Your task to perform on an android device: open the mobile data screen to see how much data has been used Image 0: 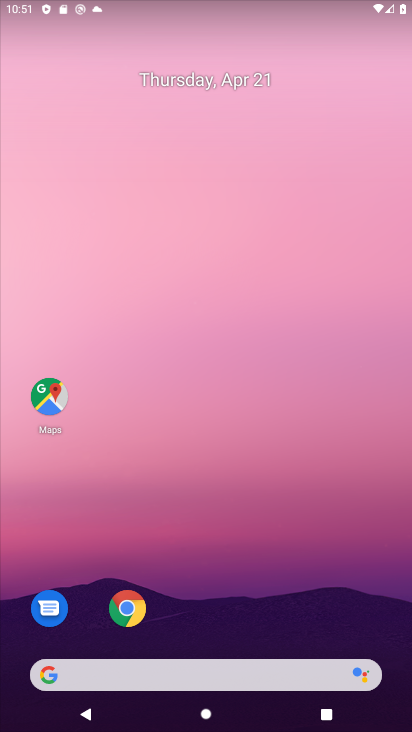
Step 0: drag from (229, 610) to (175, 113)
Your task to perform on an android device: open the mobile data screen to see how much data has been used Image 1: 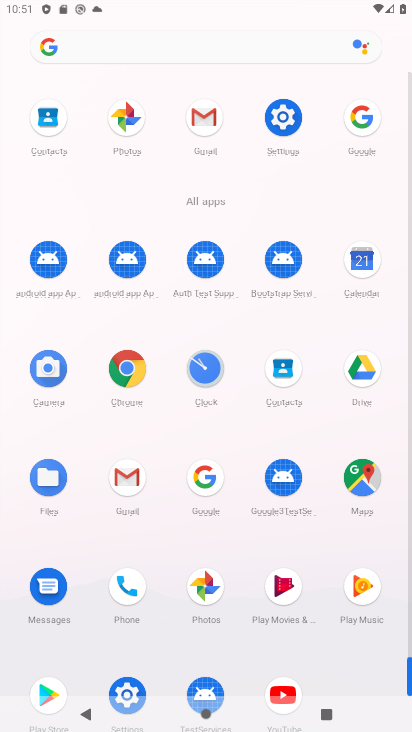
Step 1: click (284, 120)
Your task to perform on an android device: open the mobile data screen to see how much data has been used Image 2: 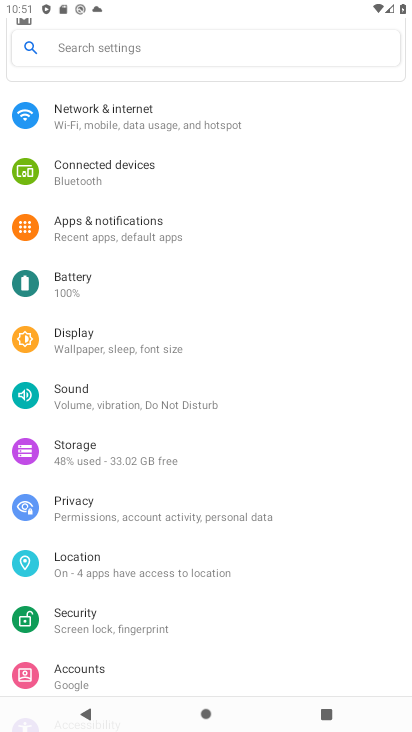
Step 2: click (128, 128)
Your task to perform on an android device: open the mobile data screen to see how much data has been used Image 3: 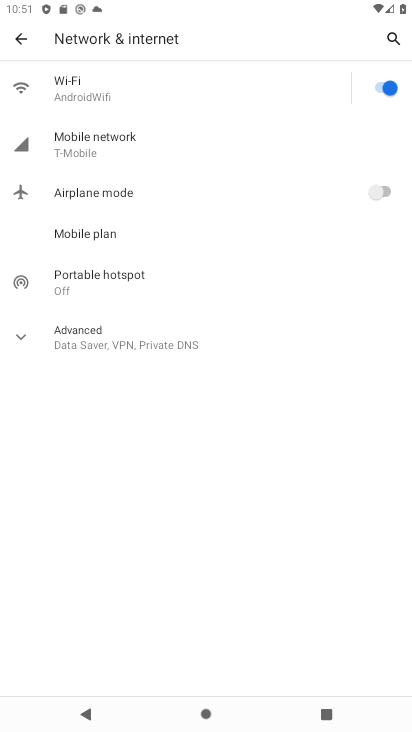
Step 3: click (105, 146)
Your task to perform on an android device: open the mobile data screen to see how much data has been used Image 4: 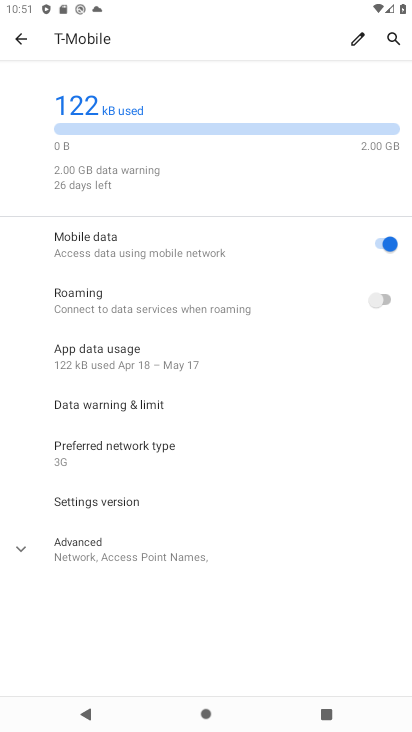
Step 4: task complete